Your task to perform on an android device: Go to network settings Image 0: 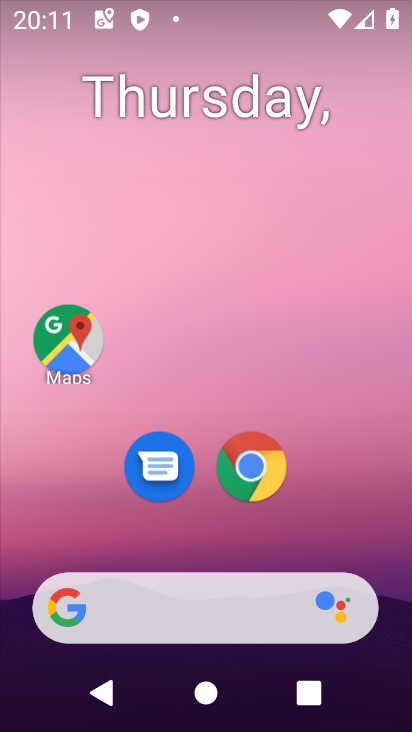
Step 0: drag from (381, 514) to (368, 161)
Your task to perform on an android device: Go to network settings Image 1: 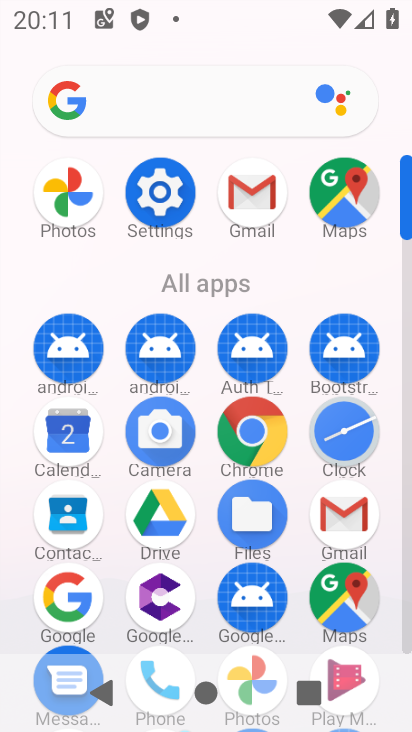
Step 1: click (169, 200)
Your task to perform on an android device: Go to network settings Image 2: 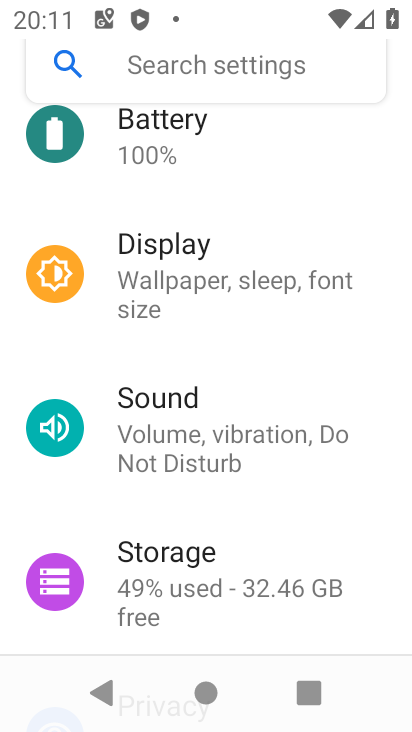
Step 2: drag from (343, 123) to (314, 722)
Your task to perform on an android device: Go to network settings Image 3: 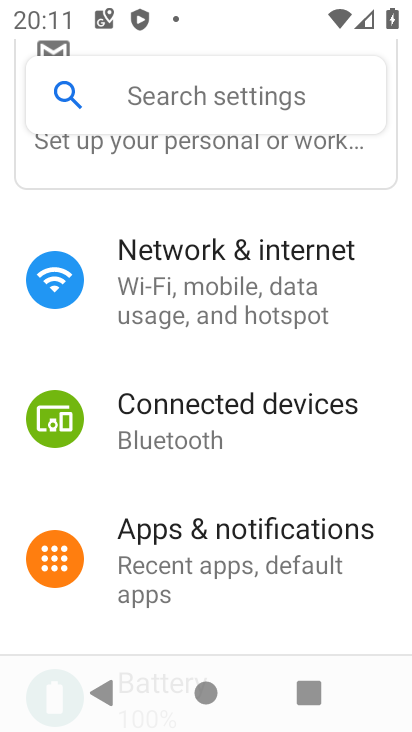
Step 3: click (208, 301)
Your task to perform on an android device: Go to network settings Image 4: 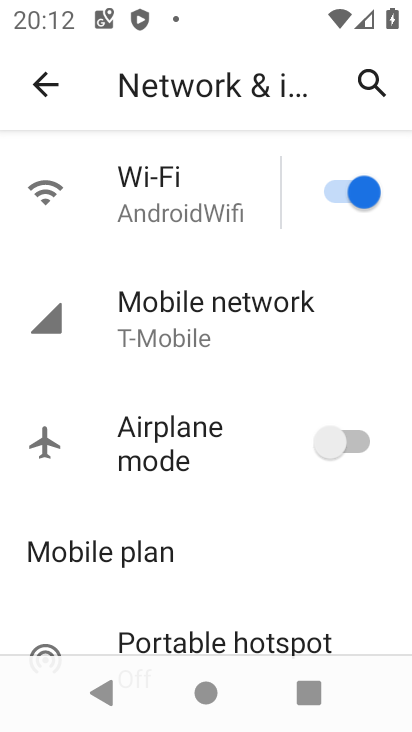
Step 4: task complete